Your task to perform on an android device: turn on data saver in the chrome app Image 0: 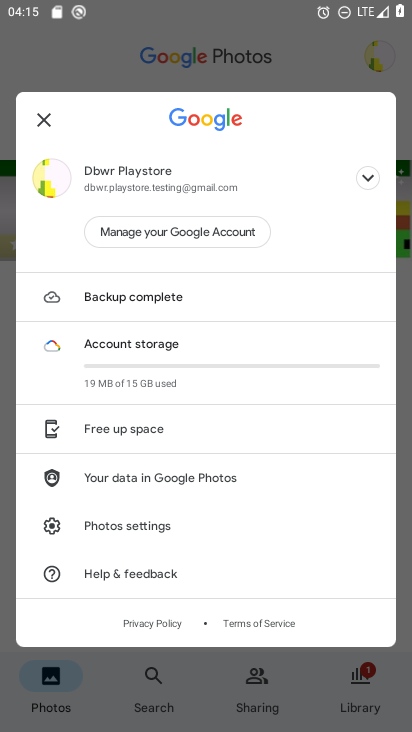
Step 0: press home button
Your task to perform on an android device: turn on data saver in the chrome app Image 1: 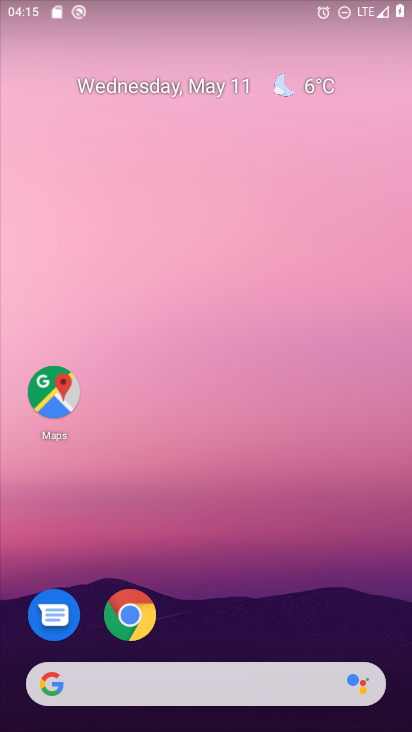
Step 1: click (131, 622)
Your task to perform on an android device: turn on data saver in the chrome app Image 2: 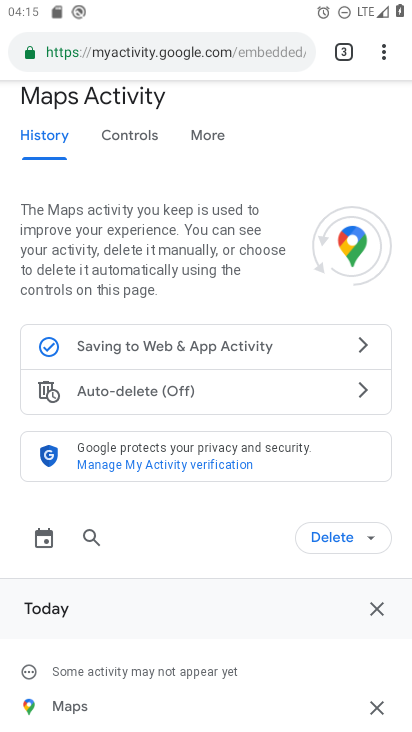
Step 2: drag from (384, 47) to (242, 627)
Your task to perform on an android device: turn on data saver in the chrome app Image 3: 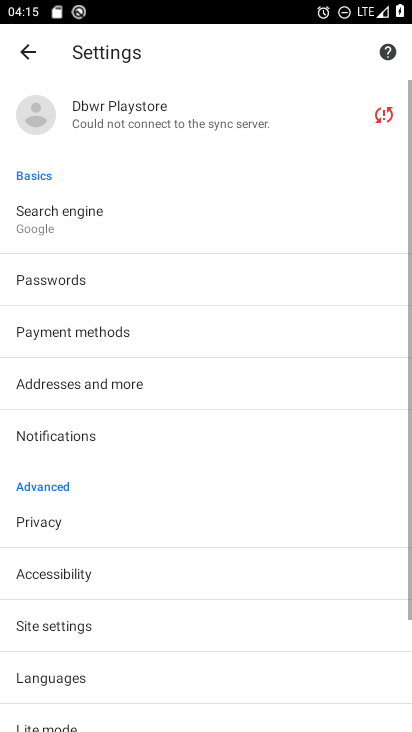
Step 3: drag from (219, 614) to (222, 41)
Your task to perform on an android device: turn on data saver in the chrome app Image 4: 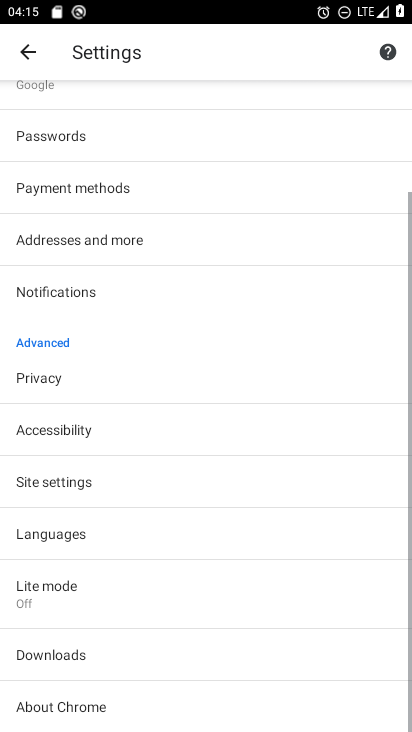
Step 4: click (86, 581)
Your task to perform on an android device: turn on data saver in the chrome app Image 5: 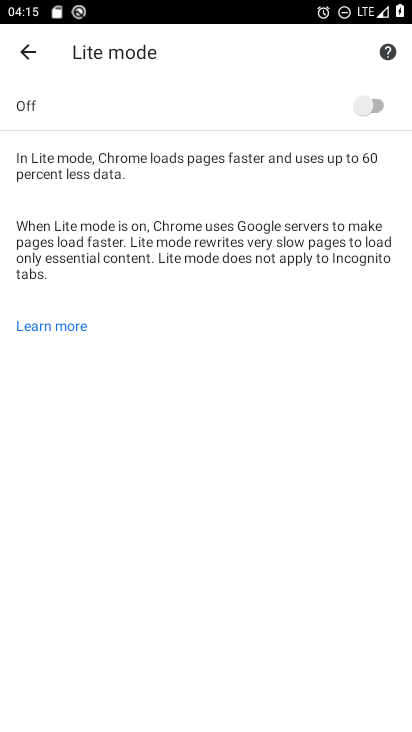
Step 5: click (378, 103)
Your task to perform on an android device: turn on data saver in the chrome app Image 6: 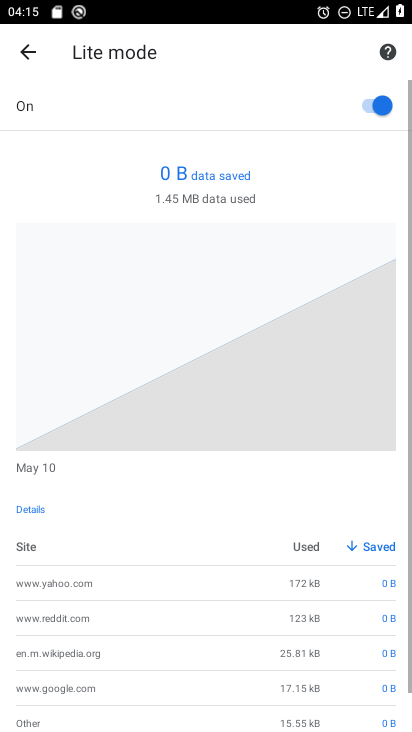
Step 6: task complete